Your task to perform on an android device: What's the weather? Image 0: 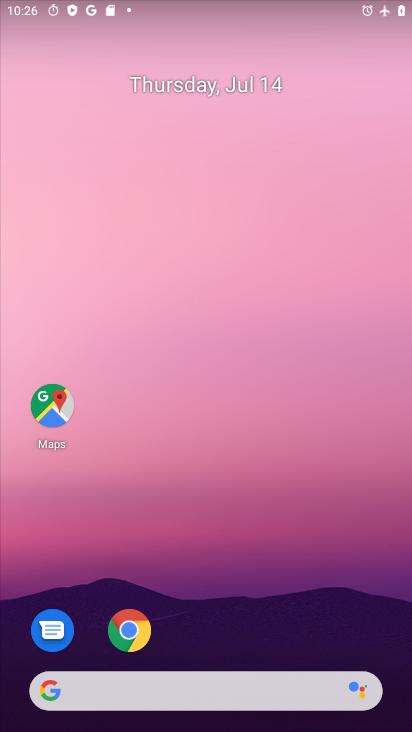
Step 0: click (91, 689)
Your task to perform on an android device: What's the weather? Image 1: 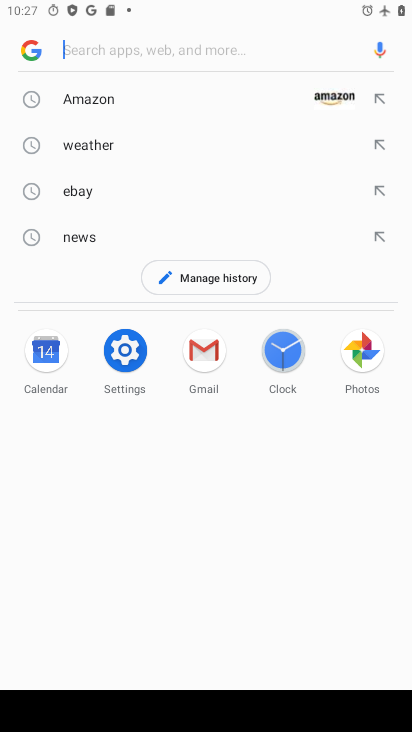
Step 1: type "What's the weather?"
Your task to perform on an android device: What's the weather? Image 2: 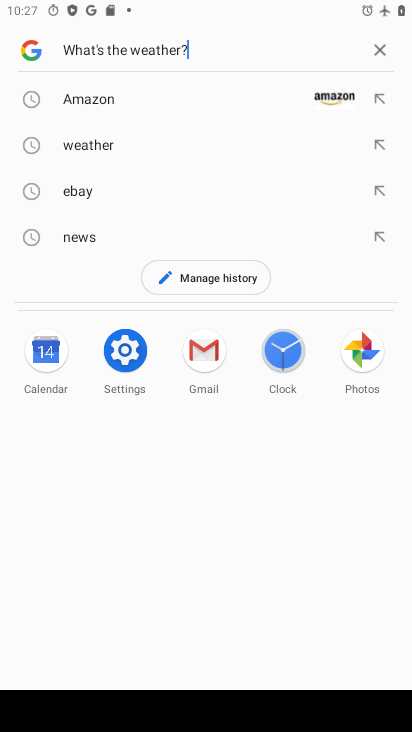
Step 2: type ""
Your task to perform on an android device: What's the weather? Image 3: 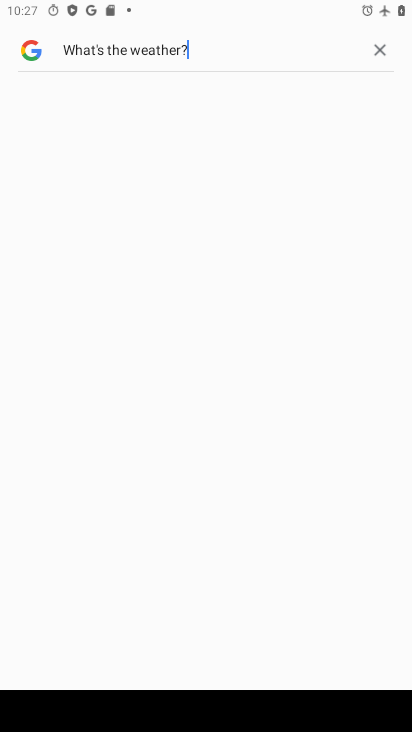
Step 3: type ""
Your task to perform on an android device: What's the weather? Image 4: 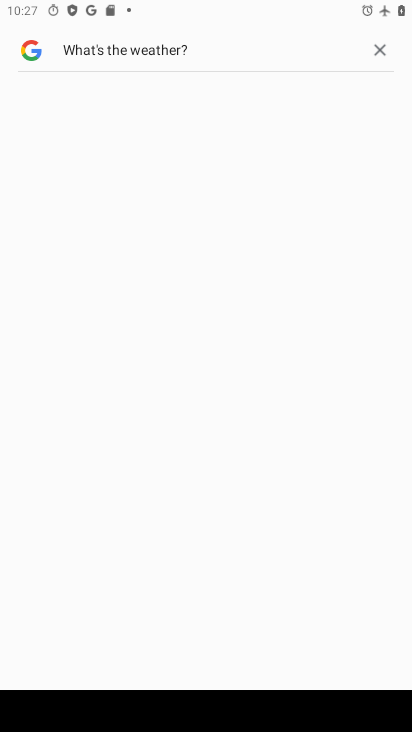
Step 4: type ""
Your task to perform on an android device: What's the weather? Image 5: 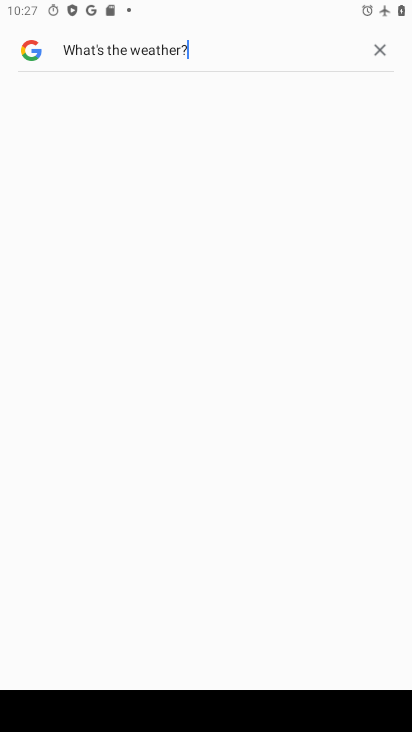
Step 5: type ""
Your task to perform on an android device: What's the weather? Image 6: 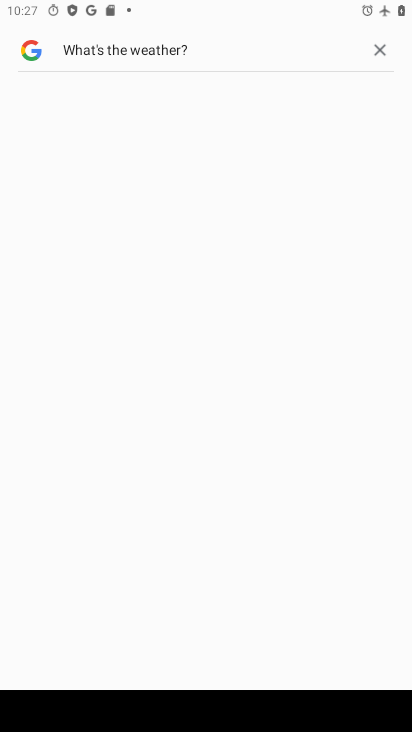
Step 6: type ""
Your task to perform on an android device: What's the weather? Image 7: 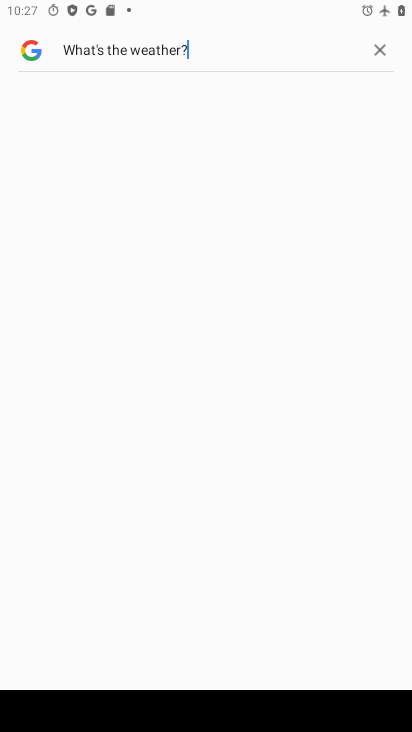
Step 7: task complete